Your task to perform on an android device: Open display settings Image 0: 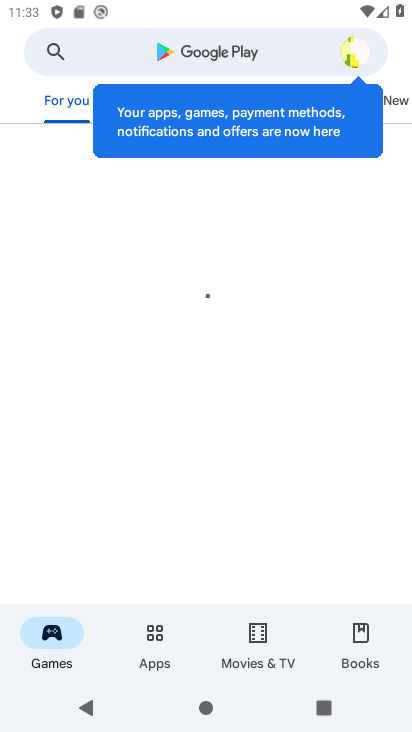
Step 0: press back button
Your task to perform on an android device: Open display settings Image 1: 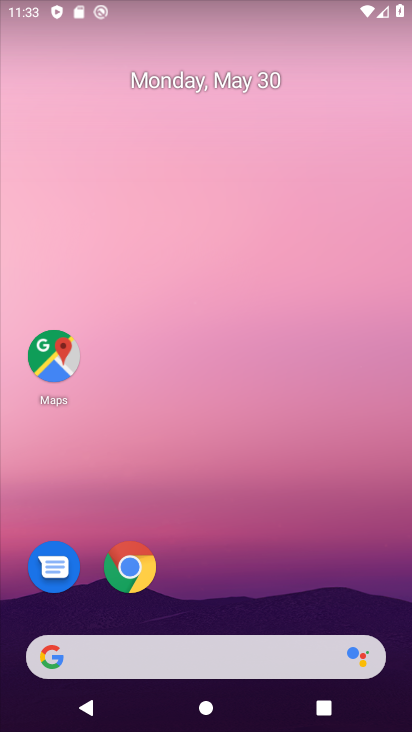
Step 1: drag from (311, 574) to (174, 14)
Your task to perform on an android device: Open display settings Image 2: 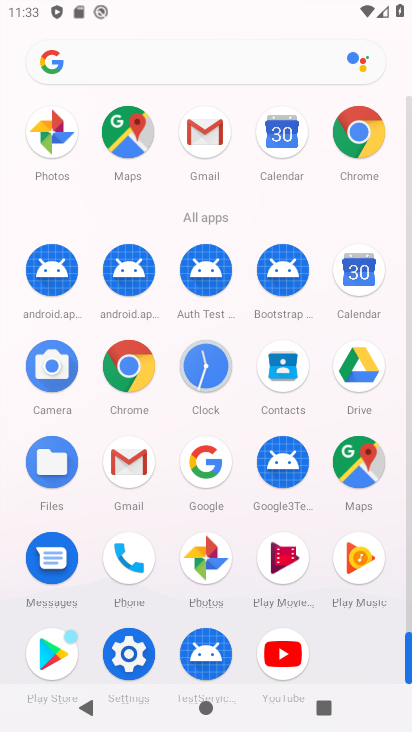
Step 2: drag from (0, 232) to (9, 135)
Your task to perform on an android device: Open display settings Image 3: 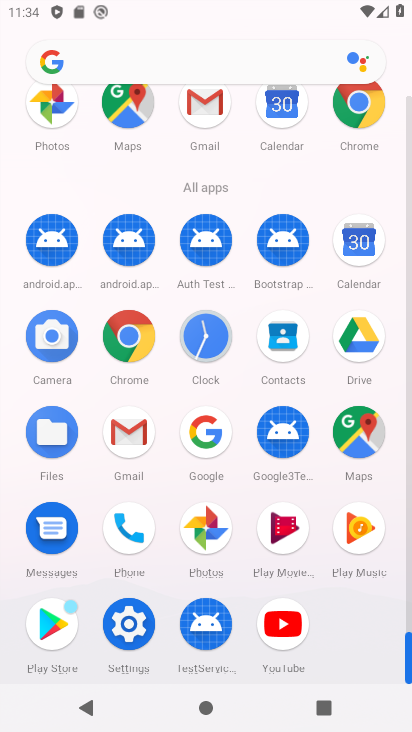
Step 3: click (130, 622)
Your task to perform on an android device: Open display settings Image 4: 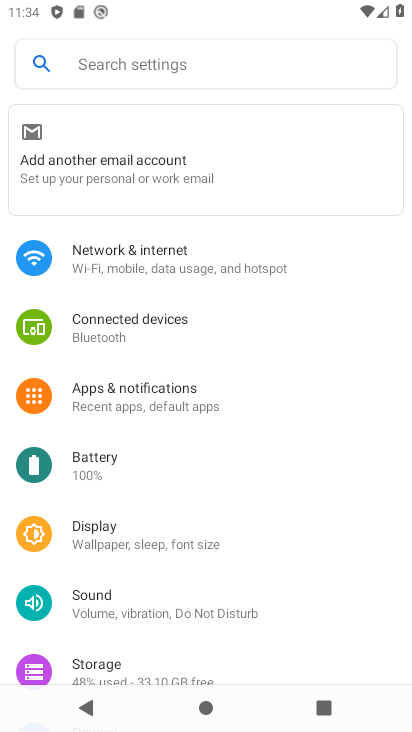
Step 4: click (143, 249)
Your task to perform on an android device: Open display settings Image 5: 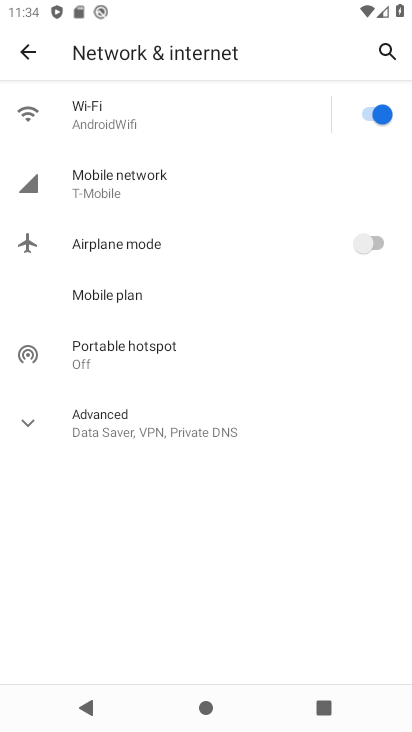
Step 5: click (24, 419)
Your task to perform on an android device: Open display settings Image 6: 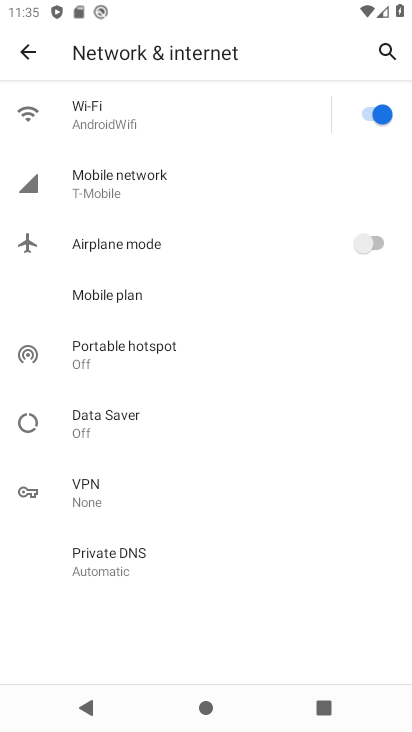
Step 6: click (19, 50)
Your task to perform on an android device: Open display settings Image 7: 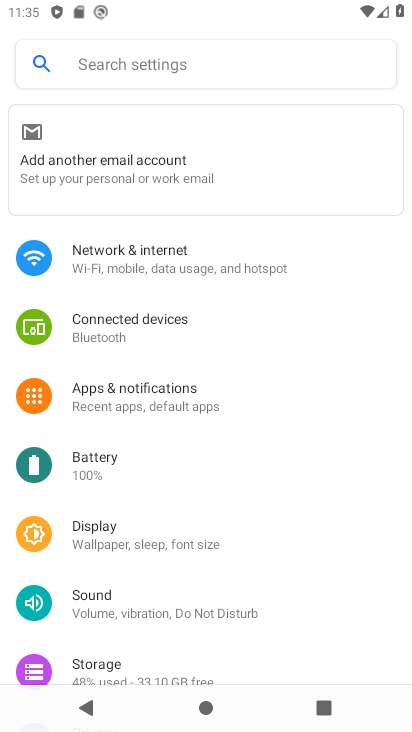
Step 7: drag from (279, 556) to (292, 341)
Your task to perform on an android device: Open display settings Image 8: 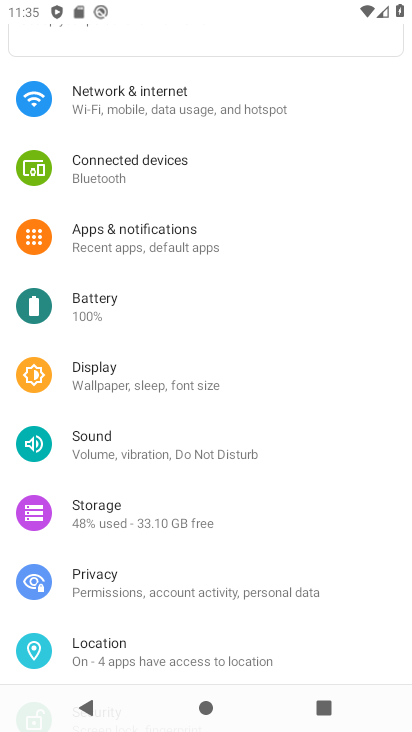
Step 8: click (144, 365)
Your task to perform on an android device: Open display settings Image 9: 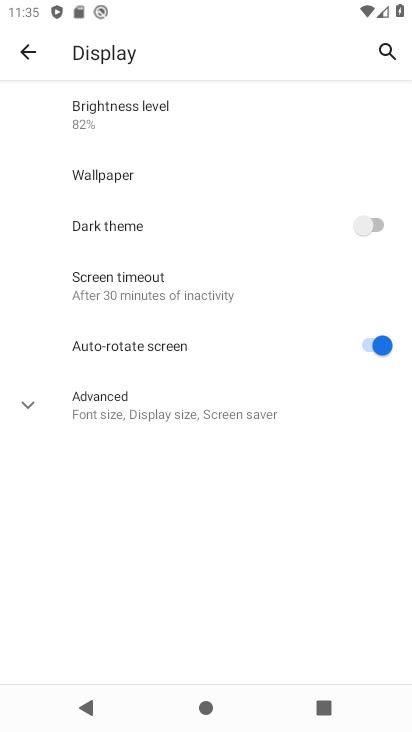
Step 9: click (19, 404)
Your task to perform on an android device: Open display settings Image 10: 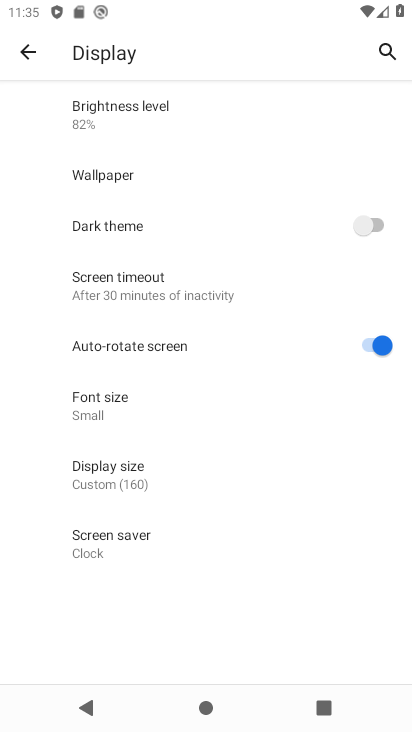
Step 10: task complete